Your task to perform on an android device: Open Google Chrome Image 0: 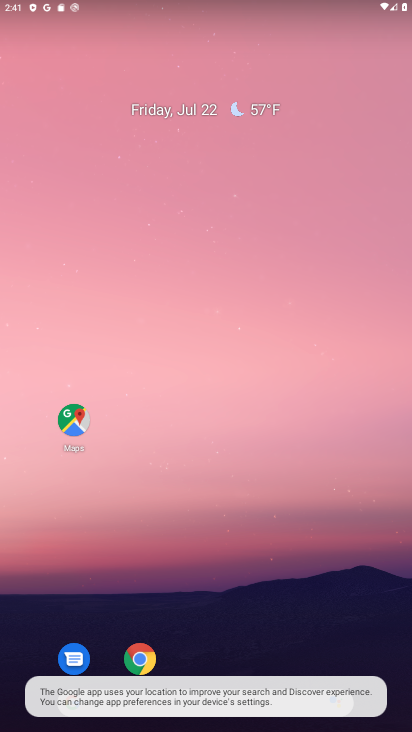
Step 0: click (136, 657)
Your task to perform on an android device: Open Google Chrome Image 1: 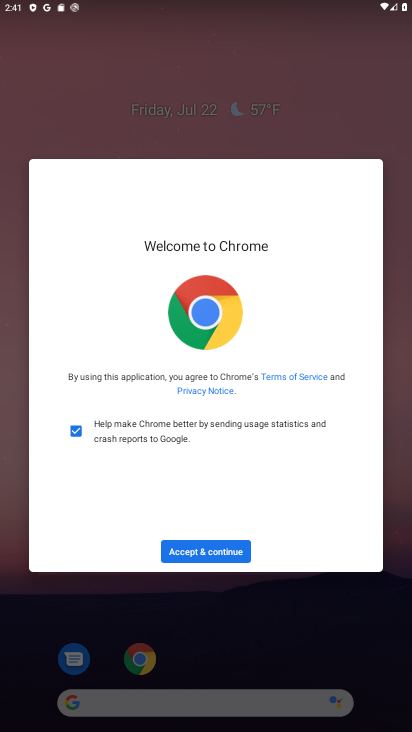
Step 1: click (201, 540)
Your task to perform on an android device: Open Google Chrome Image 2: 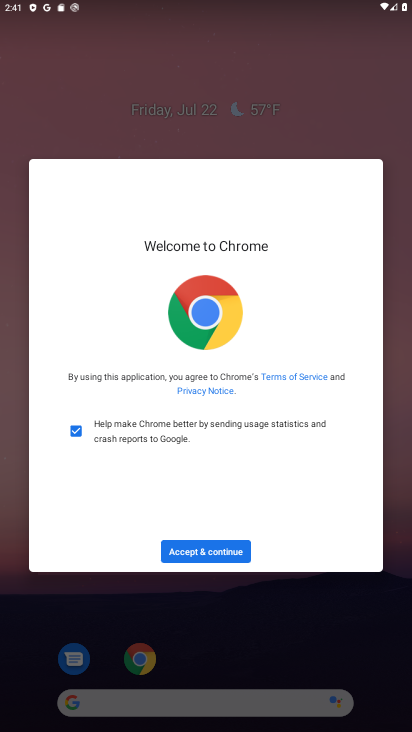
Step 2: click (205, 550)
Your task to perform on an android device: Open Google Chrome Image 3: 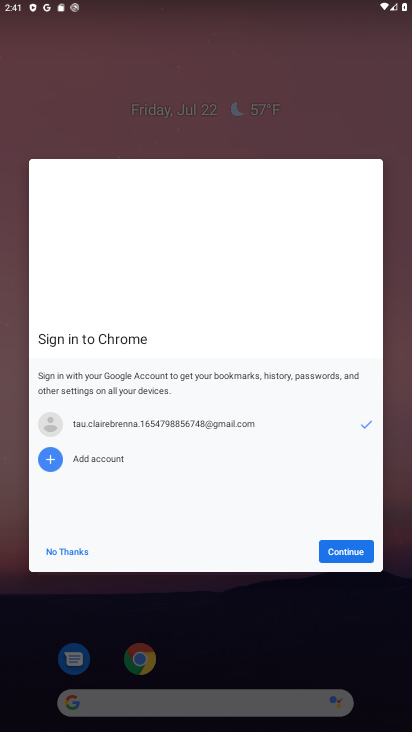
Step 3: click (345, 548)
Your task to perform on an android device: Open Google Chrome Image 4: 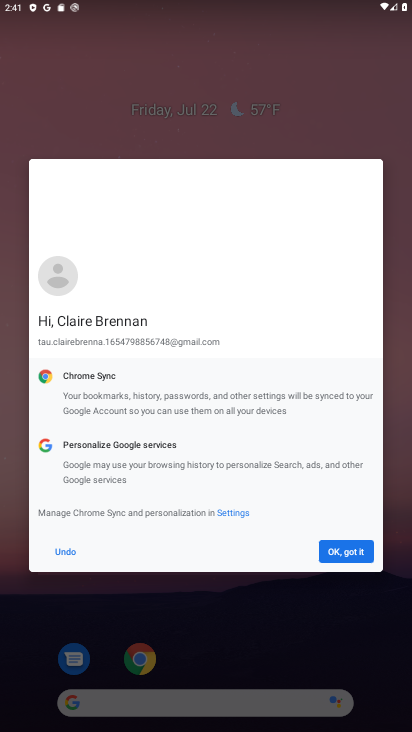
Step 4: click (345, 548)
Your task to perform on an android device: Open Google Chrome Image 5: 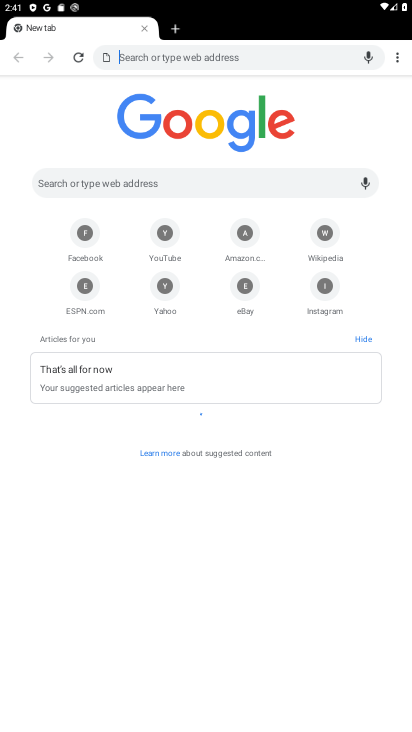
Step 5: click (394, 61)
Your task to perform on an android device: Open Google Chrome Image 6: 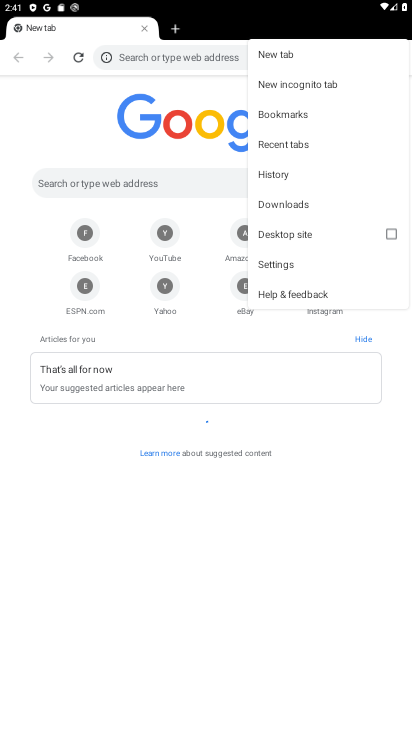
Step 6: task complete